Your task to perform on an android device: Open the web browser Image 0: 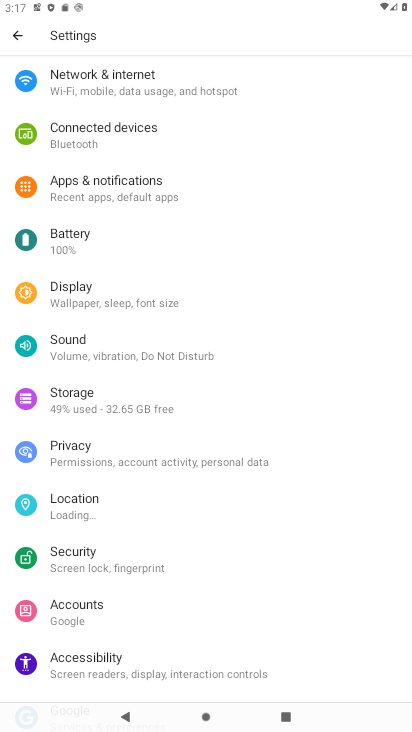
Step 0: press home button
Your task to perform on an android device: Open the web browser Image 1: 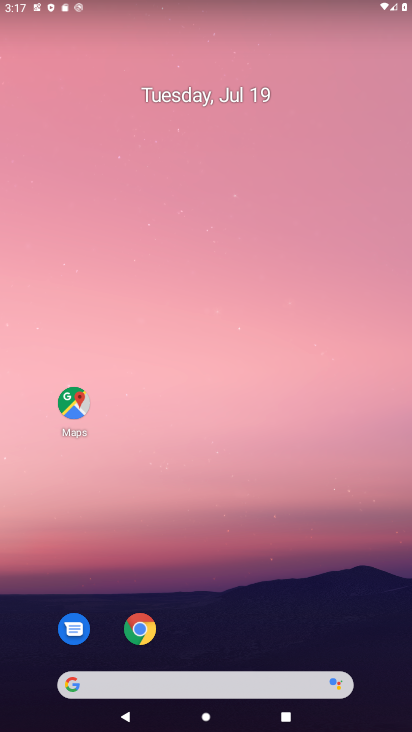
Step 1: click (136, 624)
Your task to perform on an android device: Open the web browser Image 2: 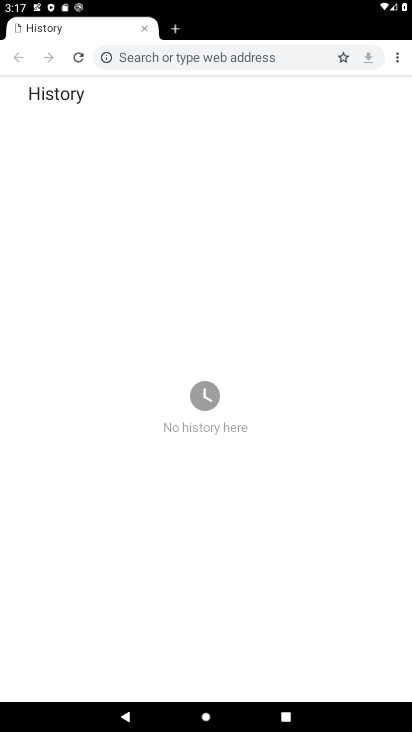
Step 2: task complete